Your task to perform on an android device: add a contact in the contacts app Image 0: 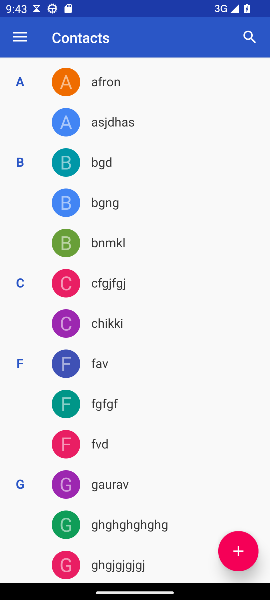
Step 0: press home button
Your task to perform on an android device: add a contact in the contacts app Image 1: 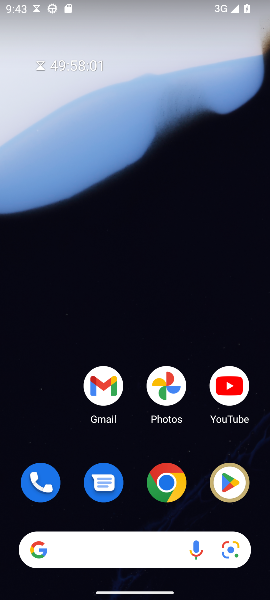
Step 1: drag from (150, 512) to (166, 63)
Your task to perform on an android device: add a contact in the contacts app Image 2: 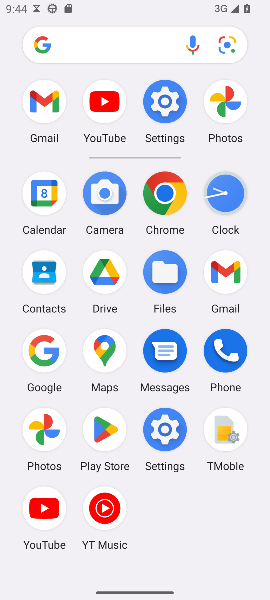
Step 2: click (234, 352)
Your task to perform on an android device: add a contact in the contacts app Image 3: 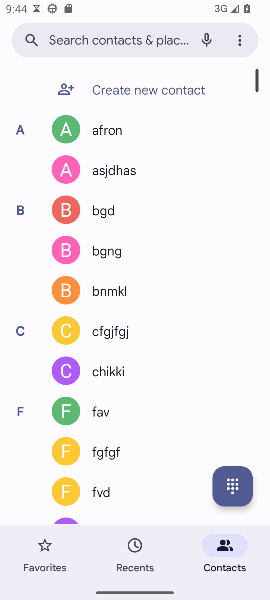
Step 3: click (111, 85)
Your task to perform on an android device: add a contact in the contacts app Image 4: 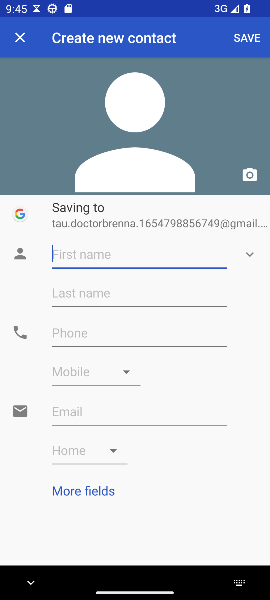
Step 4: type "yiiijuuu"
Your task to perform on an android device: add a contact in the contacts app Image 5: 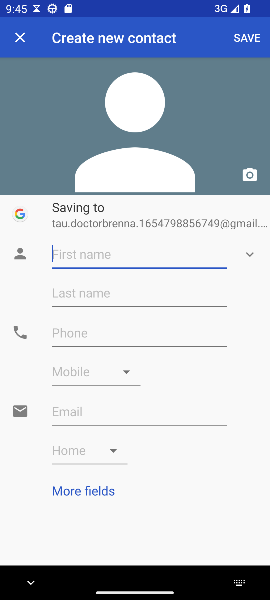
Step 5: click (82, 327)
Your task to perform on an android device: add a contact in the contacts app Image 6: 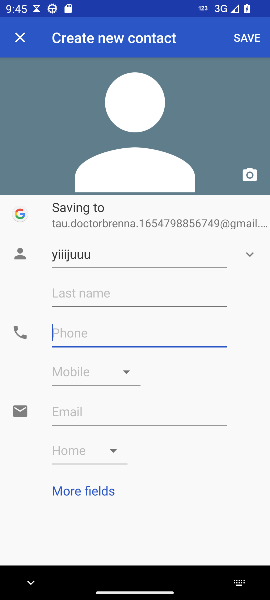
Step 6: type "6787677667"
Your task to perform on an android device: add a contact in the contacts app Image 7: 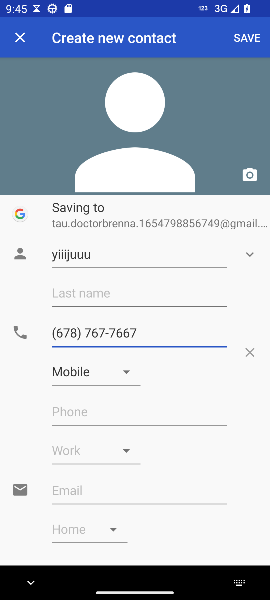
Step 7: click (239, 44)
Your task to perform on an android device: add a contact in the contacts app Image 8: 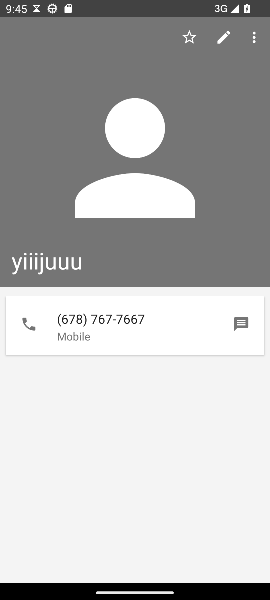
Step 8: task complete